Your task to perform on an android device: Open Yahoo.com Image 0: 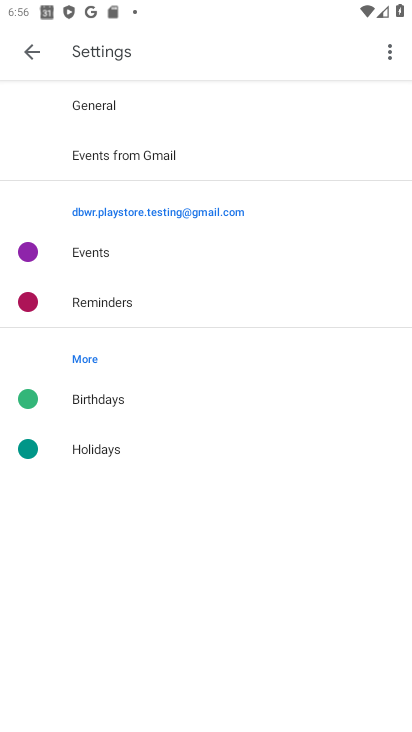
Step 0: press home button
Your task to perform on an android device: Open Yahoo.com Image 1: 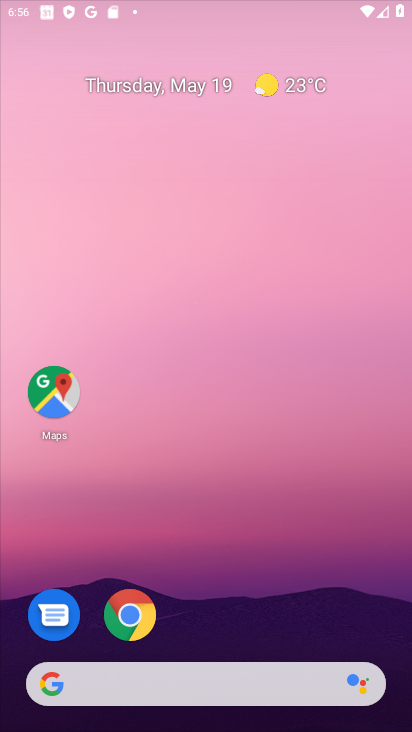
Step 1: drag from (394, 636) to (329, 74)
Your task to perform on an android device: Open Yahoo.com Image 2: 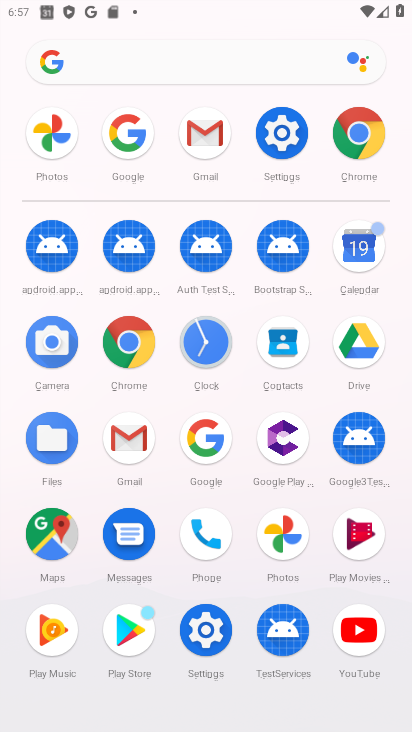
Step 2: click (140, 360)
Your task to perform on an android device: Open Yahoo.com Image 3: 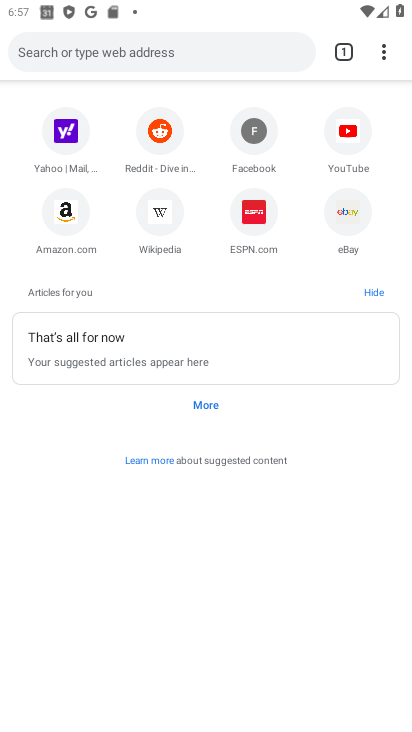
Step 3: click (83, 143)
Your task to perform on an android device: Open Yahoo.com Image 4: 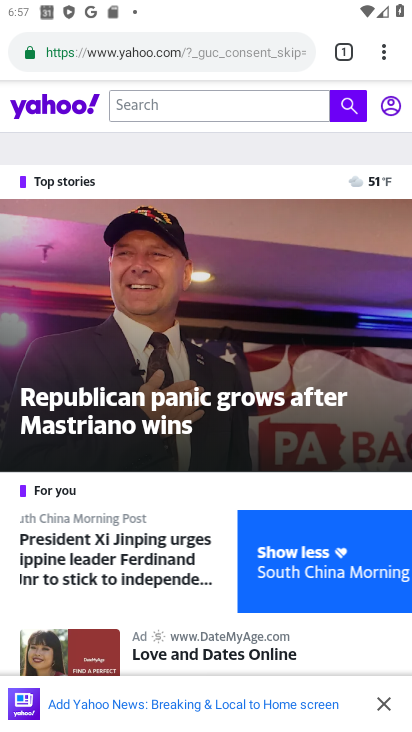
Step 4: task complete